Your task to perform on an android device: turn off wifi Image 0: 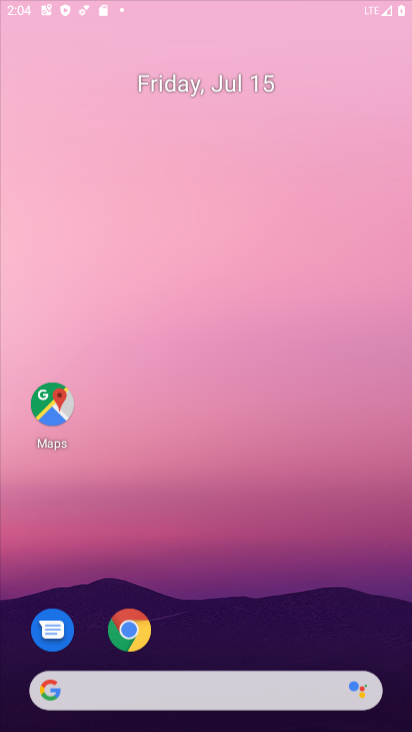
Step 0: press home button
Your task to perform on an android device: turn off wifi Image 1: 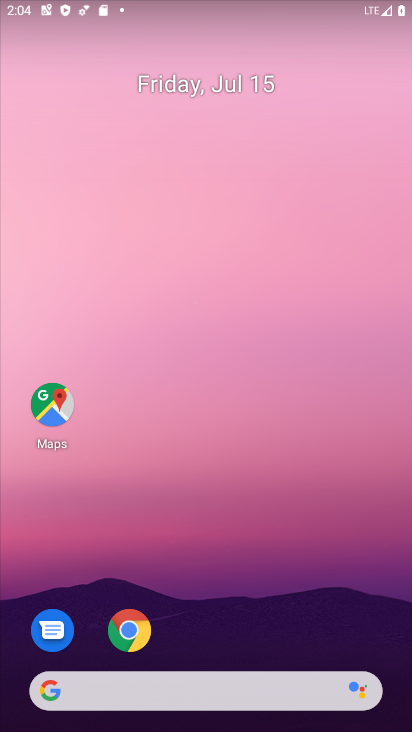
Step 1: drag from (232, 633) to (249, 154)
Your task to perform on an android device: turn off wifi Image 2: 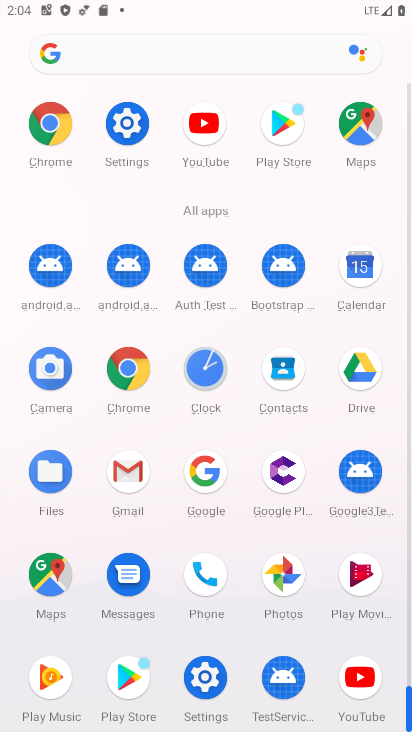
Step 2: click (129, 121)
Your task to perform on an android device: turn off wifi Image 3: 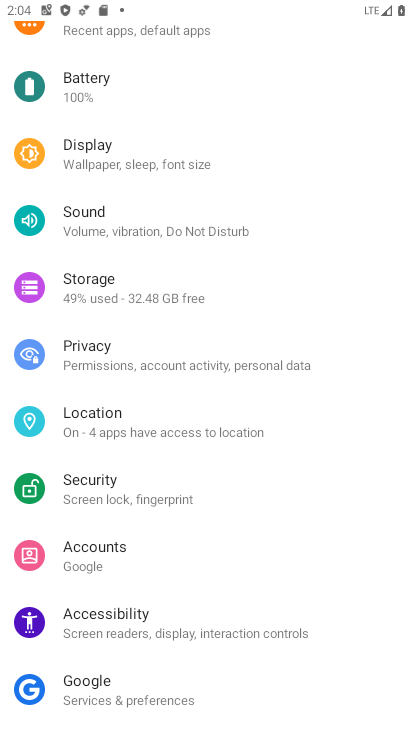
Step 3: drag from (280, 60) to (238, 631)
Your task to perform on an android device: turn off wifi Image 4: 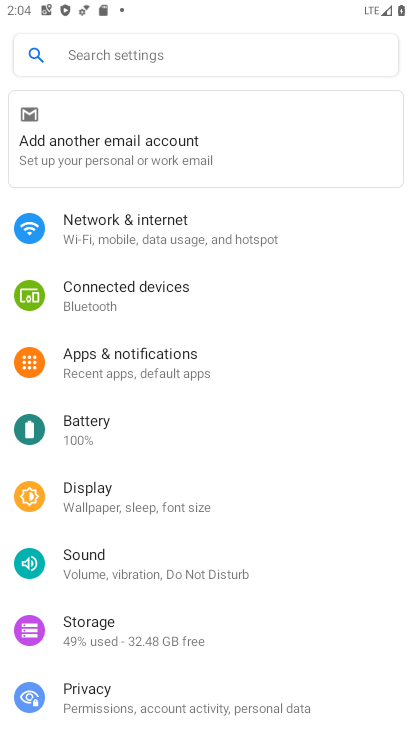
Step 4: click (114, 227)
Your task to perform on an android device: turn off wifi Image 5: 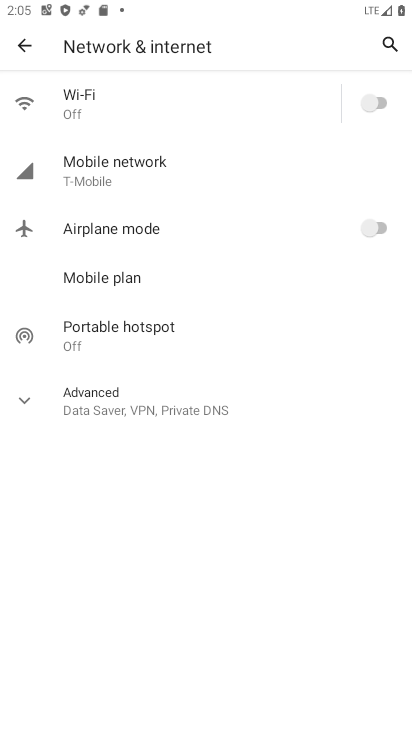
Step 5: task complete